Your task to perform on an android device: check out phone information Image 0: 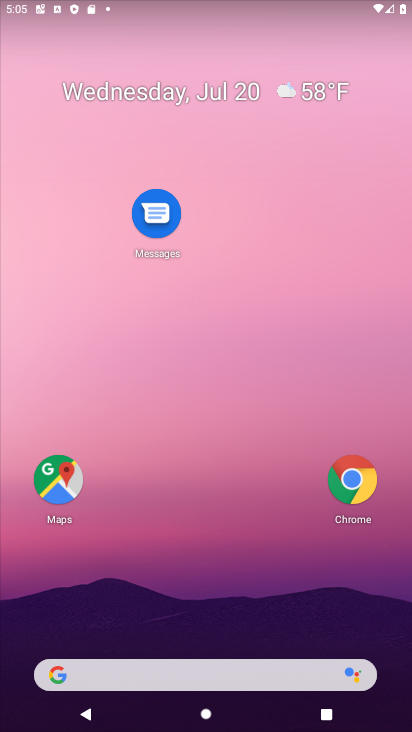
Step 0: drag from (165, 592) to (188, 248)
Your task to perform on an android device: check out phone information Image 1: 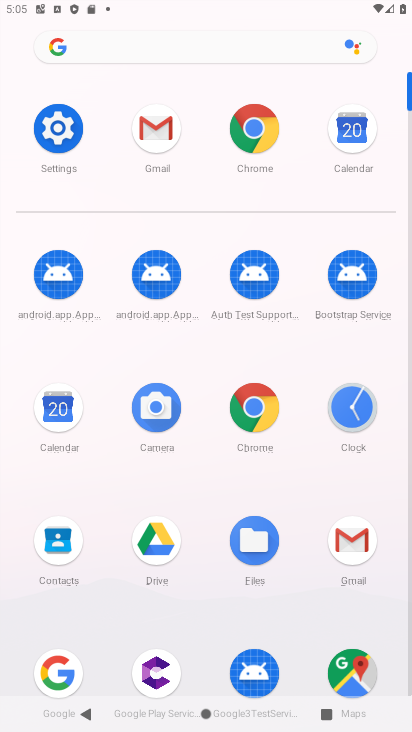
Step 1: click (54, 140)
Your task to perform on an android device: check out phone information Image 2: 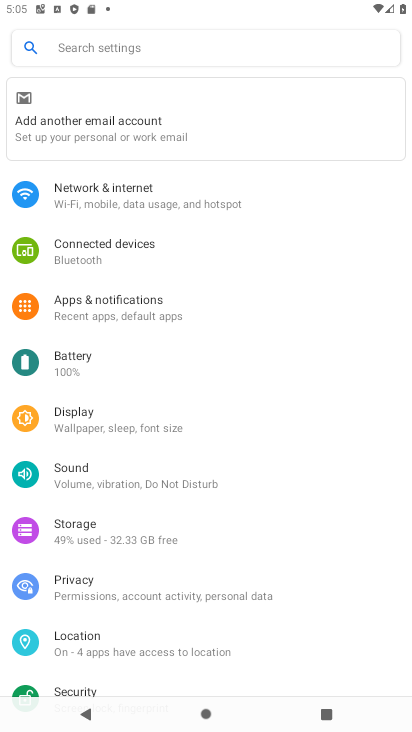
Step 2: drag from (129, 506) to (146, 334)
Your task to perform on an android device: check out phone information Image 3: 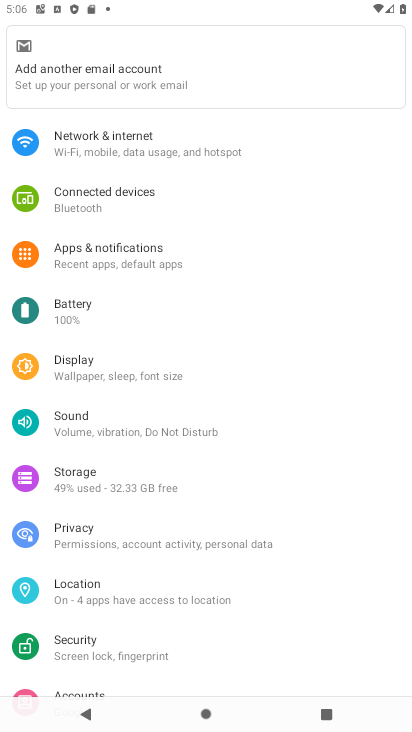
Step 3: drag from (96, 589) to (109, 440)
Your task to perform on an android device: check out phone information Image 4: 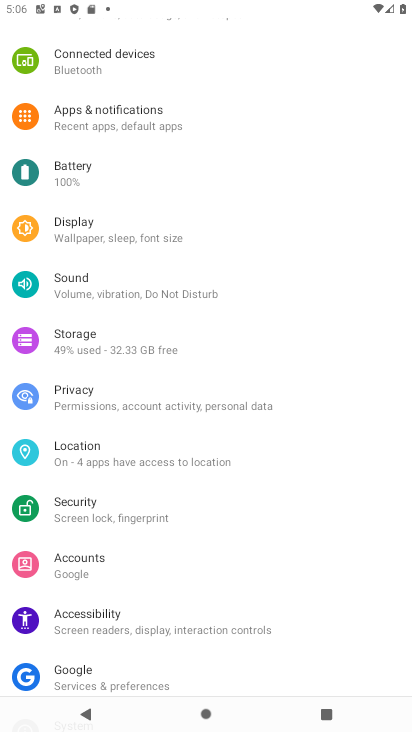
Step 4: drag from (169, 569) to (139, 336)
Your task to perform on an android device: check out phone information Image 5: 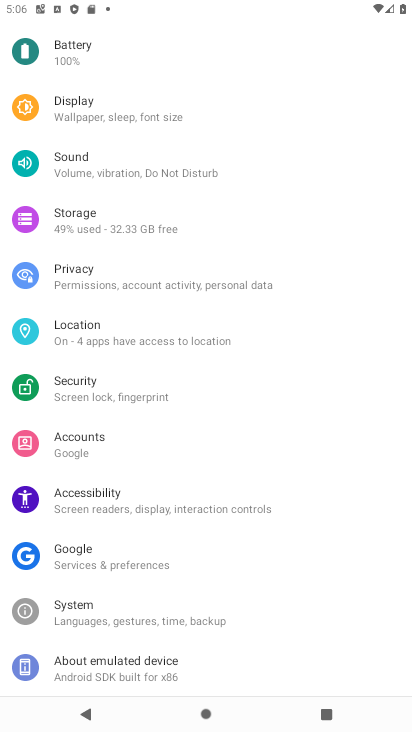
Step 5: click (102, 675)
Your task to perform on an android device: check out phone information Image 6: 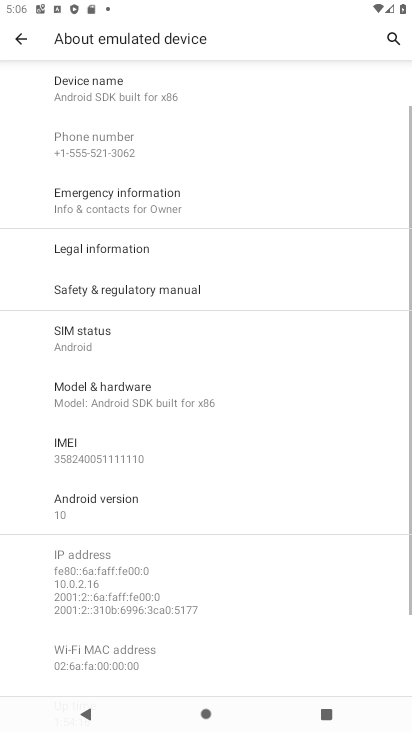
Step 6: task complete